Your task to perform on an android device: star an email in the gmail app Image 0: 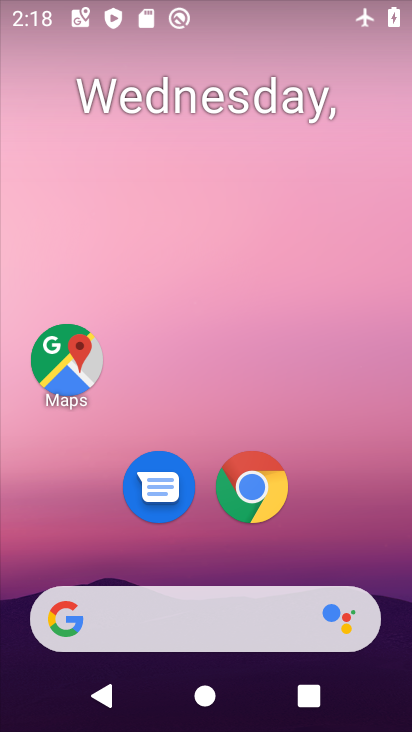
Step 0: drag from (377, 535) to (410, 216)
Your task to perform on an android device: star an email in the gmail app Image 1: 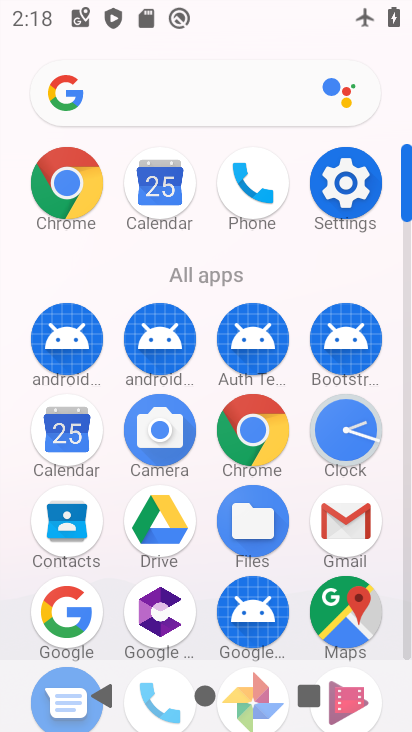
Step 1: click (338, 528)
Your task to perform on an android device: star an email in the gmail app Image 2: 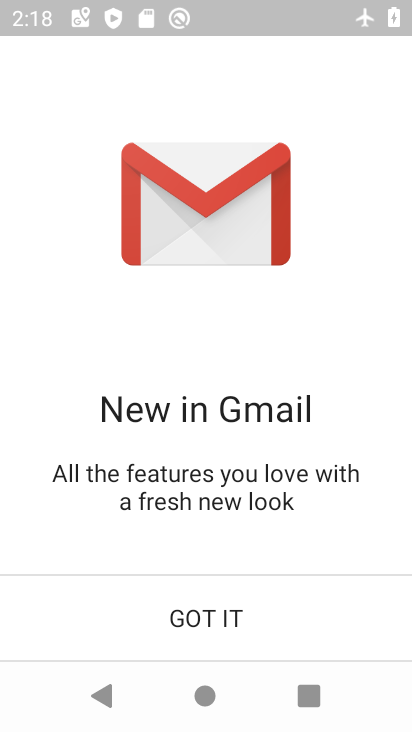
Step 2: click (196, 622)
Your task to perform on an android device: star an email in the gmail app Image 3: 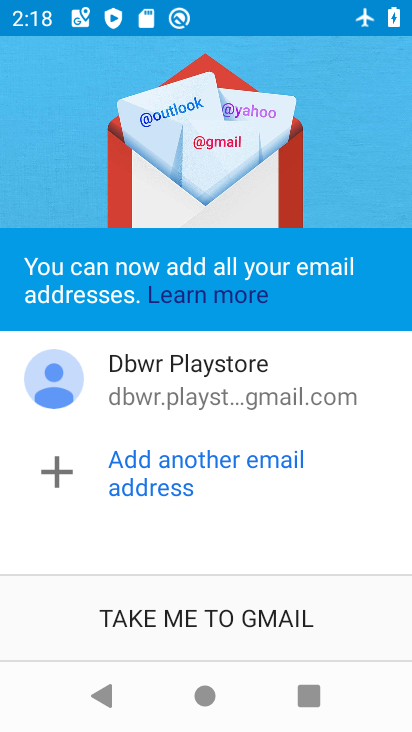
Step 3: click (196, 623)
Your task to perform on an android device: star an email in the gmail app Image 4: 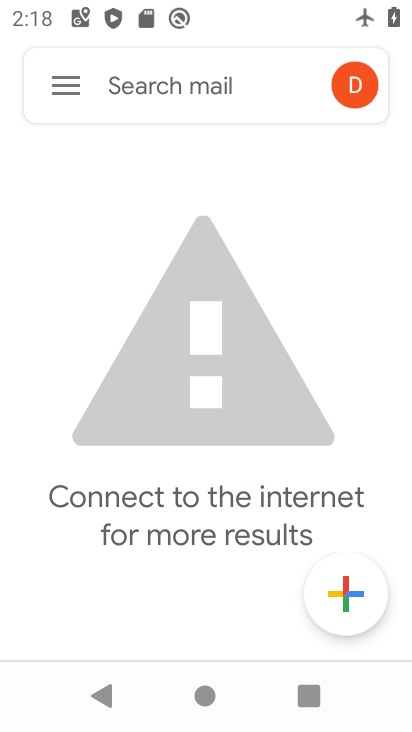
Step 4: task complete